Your task to perform on an android device: check android version Image 0: 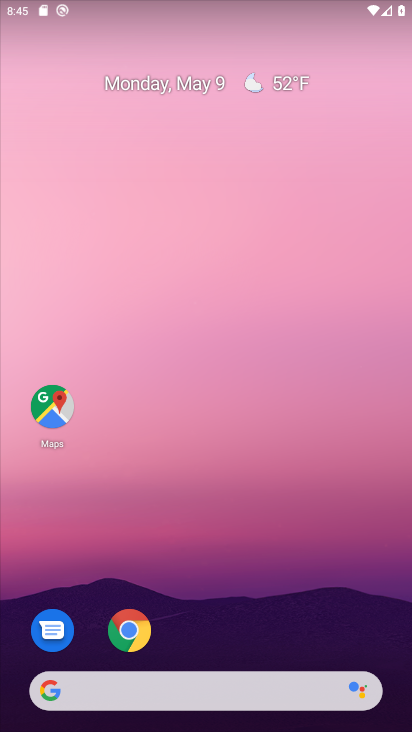
Step 0: drag from (199, 651) to (237, 123)
Your task to perform on an android device: check android version Image 1: 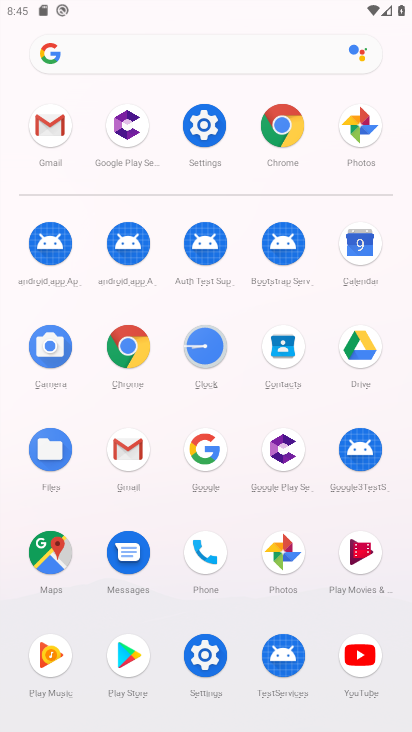
Step 1: click (208, 647)
Your task to perform on an android device: check android version Image 2: 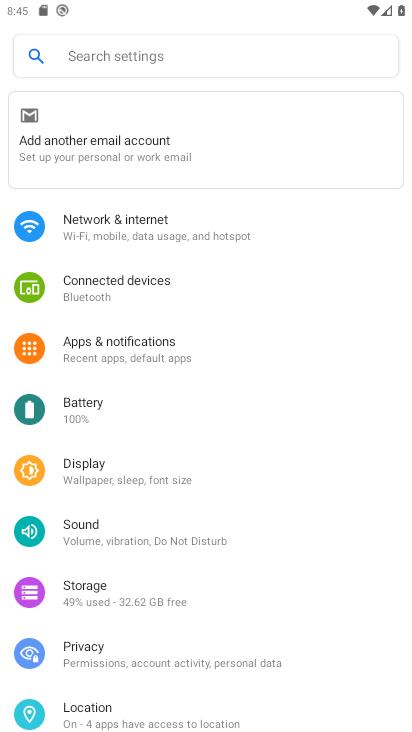
Step 2: drag from (164, 698) to (206, 16)
Your task to perform on an android device: check android version Image 3: 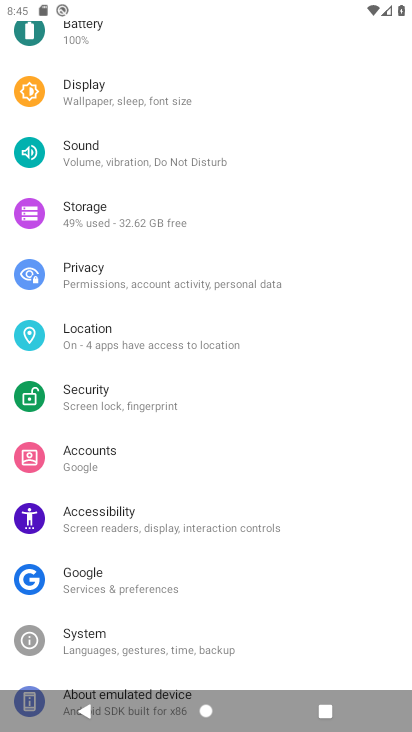
Step 3: drag from (176, 641) to (212, 383)
Your task to perform on an android device: check android version Image 4: 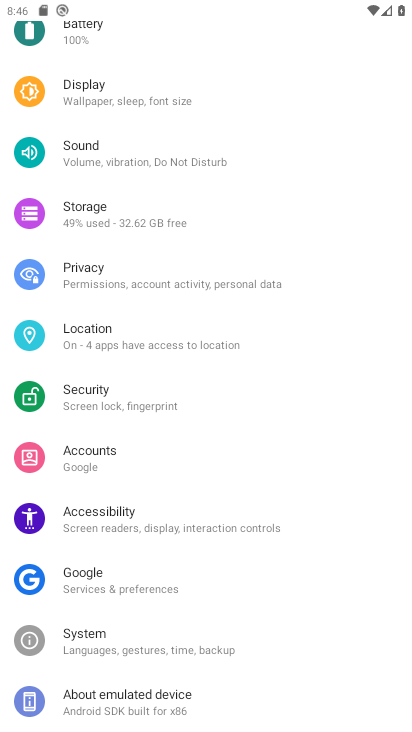
Step 4: click (123, 704)
Your task to perform on an android device: check android version Image 5: 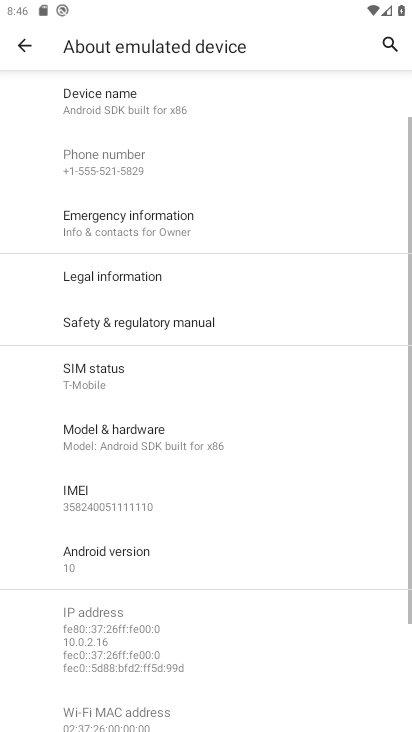
Step 5: click (108, 570)
Your task to perform on an android device: check android version Image 6: 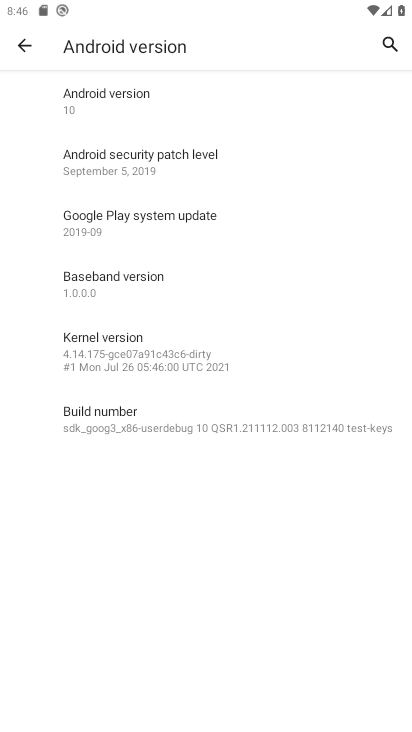
Step 6: task complete